Your task to perform on an android device: Go to display settings Image 0: 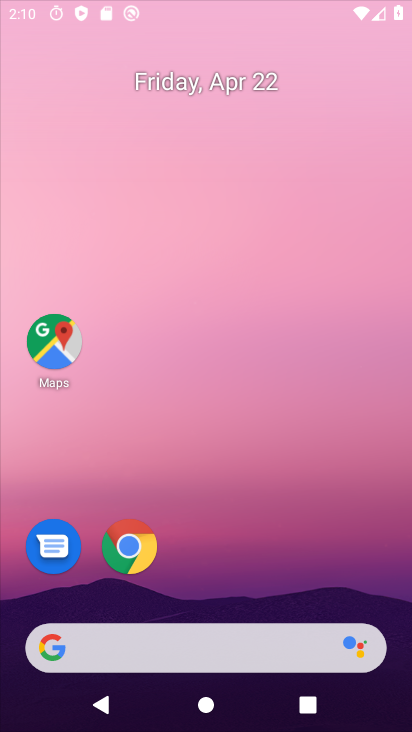
Step 0: drag from (230, 498) to (291, 76)
Your task to perform on an android device: Go to display settings Image 1: 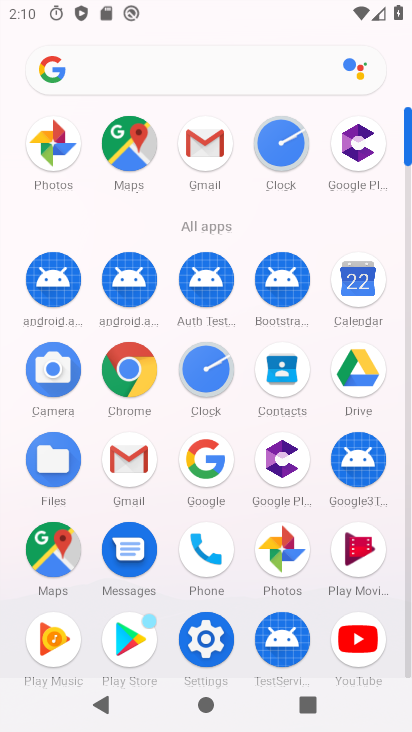
Step 1: click (213, 641)
Your task to perform on an android device: Go to display settings Image 2: 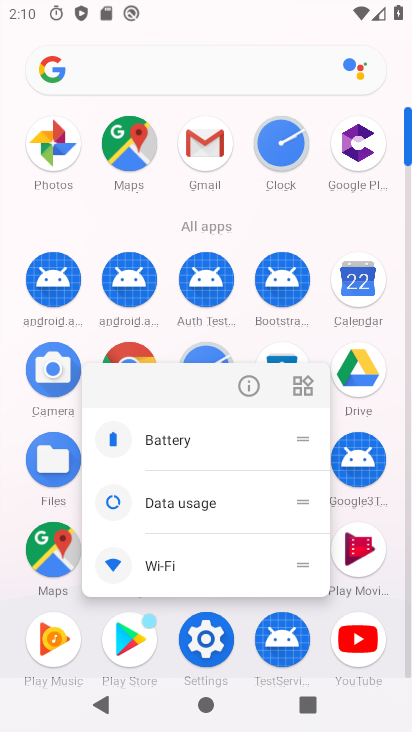
Step 2: click (240, 379)
Your task to perform on an android device: Go to display settings Image 3: 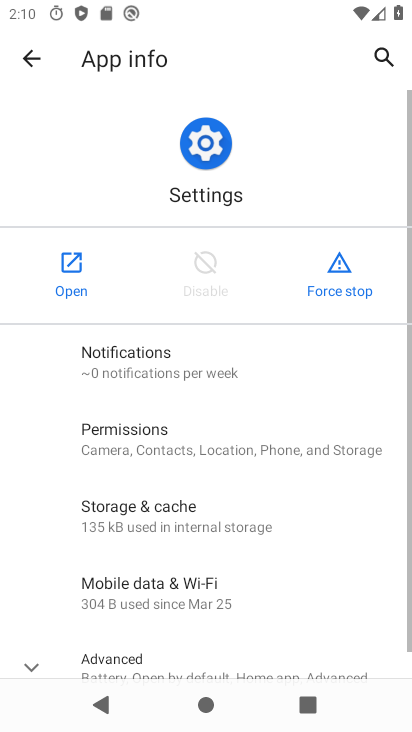
Step 3: click (71, 271)
Your task to perform on an android device: Go to display settings Image 4: 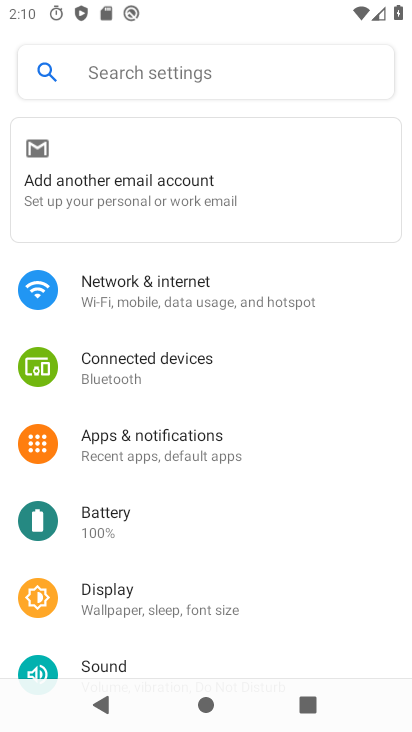
Step 4: click (127, 595)
Your task to perform on an android device: Go to display settings Image 5: 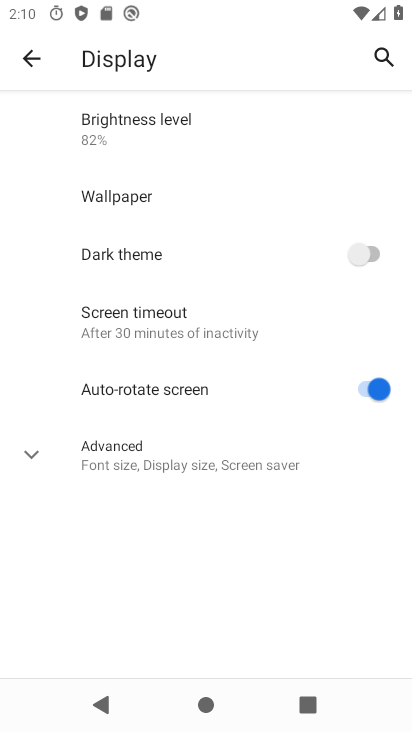
Step 5: task complete